Your task to perform on an android device: open the mobile data screen to see how much data has been used Image 0: 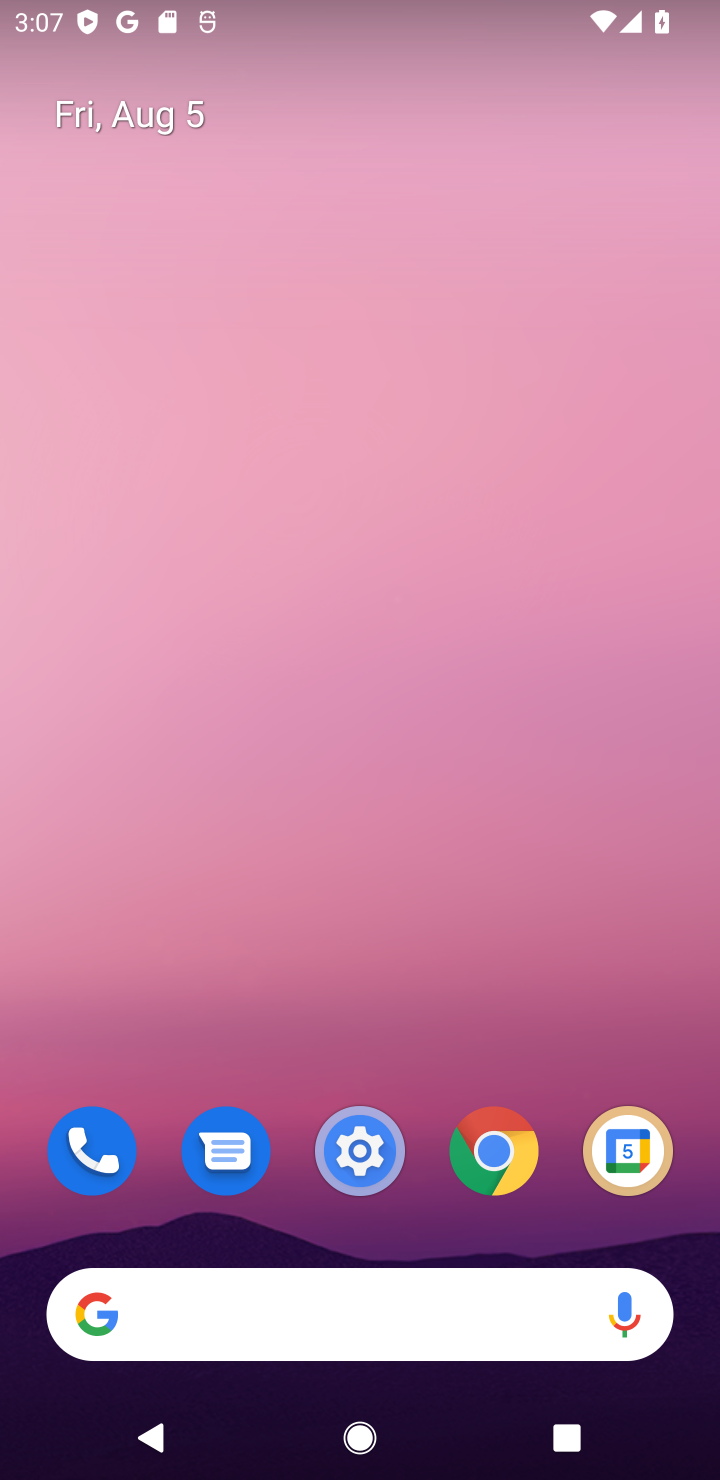
Step 0: click (354, 1164)
Your task to perform on an android device: open the mobile data screen to see how much data has been used Image 1: 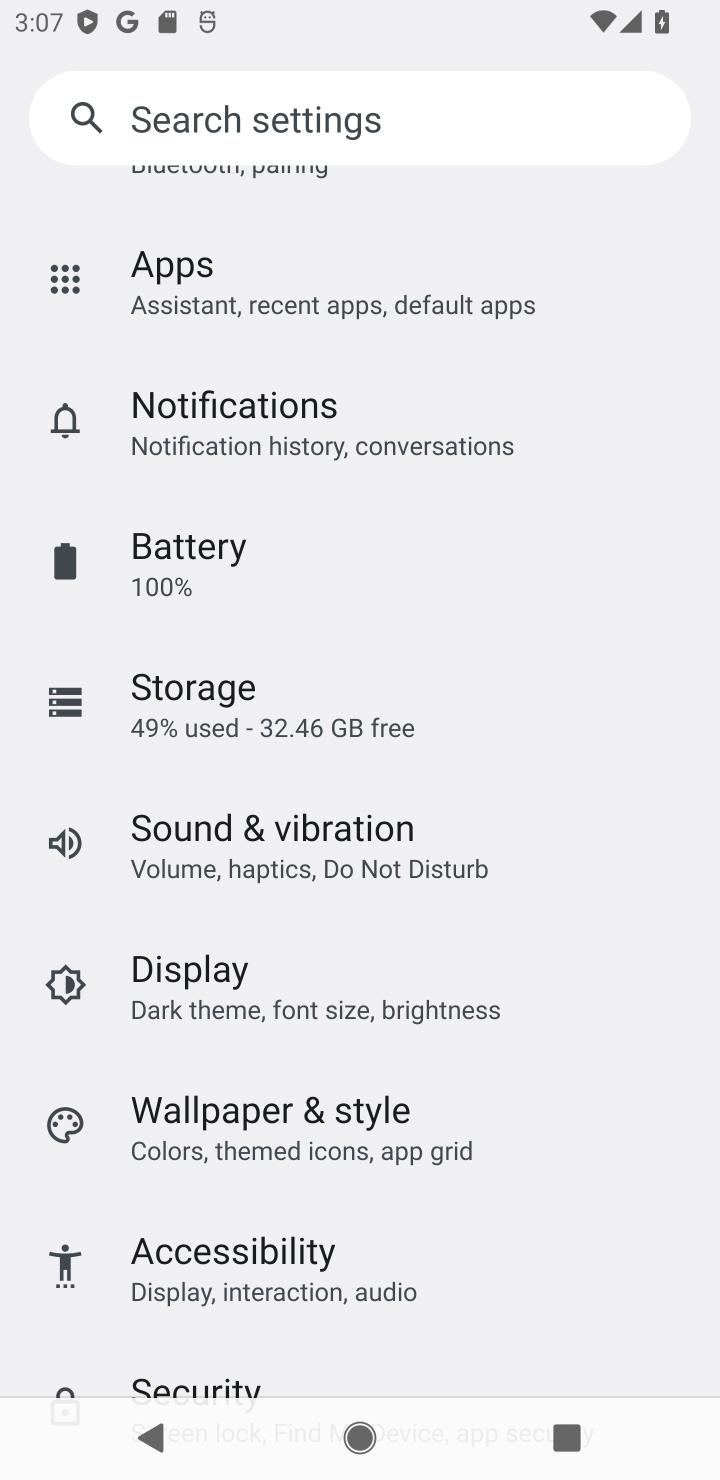
Step 1: drag from (466, 512) to (517, 1076)
Your task to perform on an android device: open the mobile data screen to see how much data has been used Image 2: 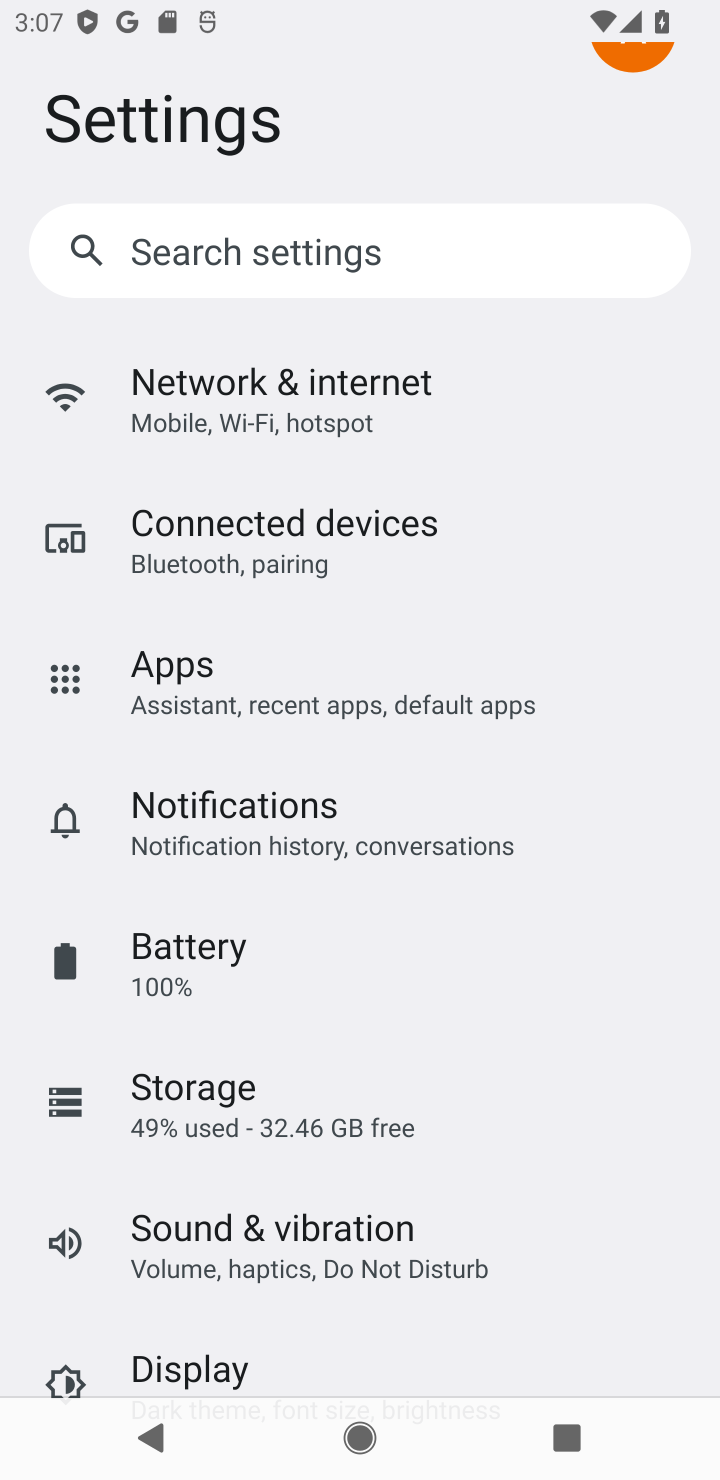
Step 2: click (373, 382)
Your task to perform on an android device: open the mobile data screen to see how much data has been used Image 3: 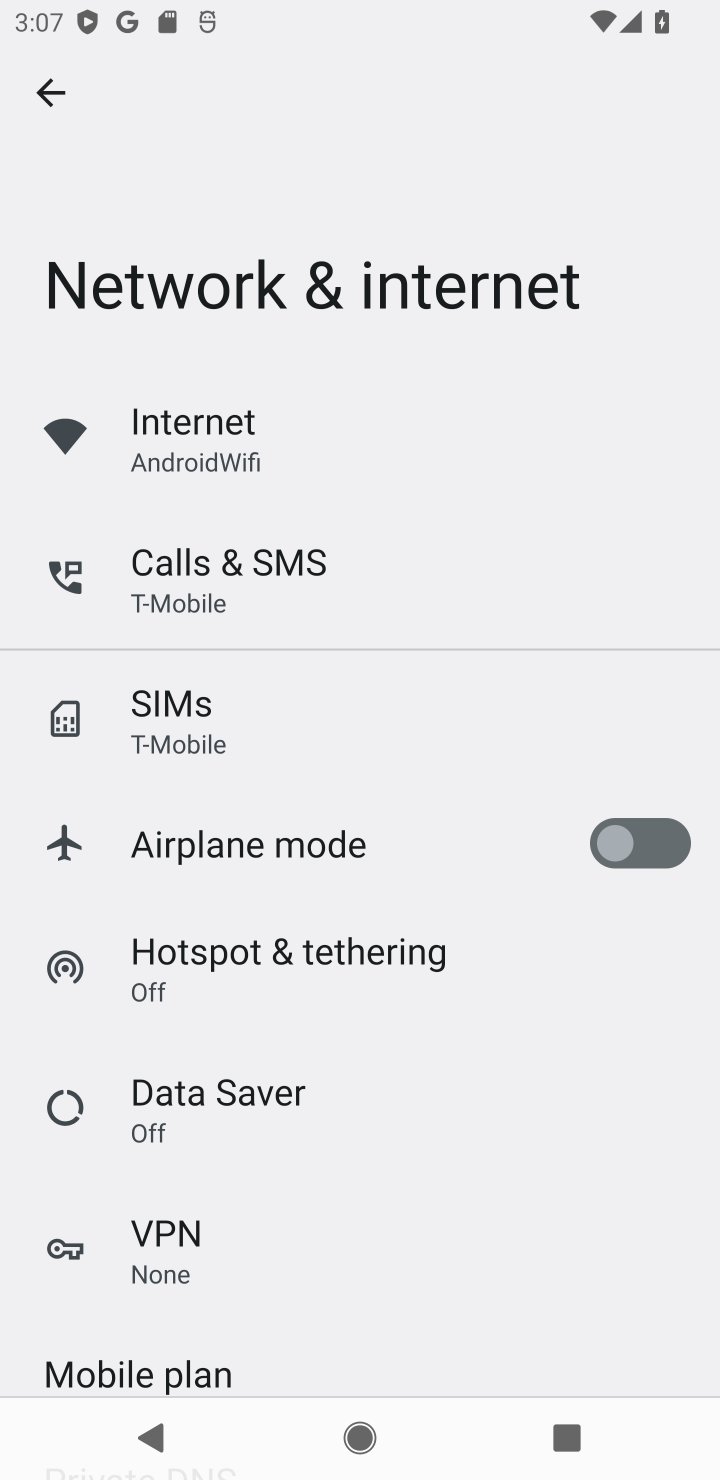
Step 3: click (272, 423)
Your task to perform on an android device: open the mobile data screen to see how much data has been used Image 4: 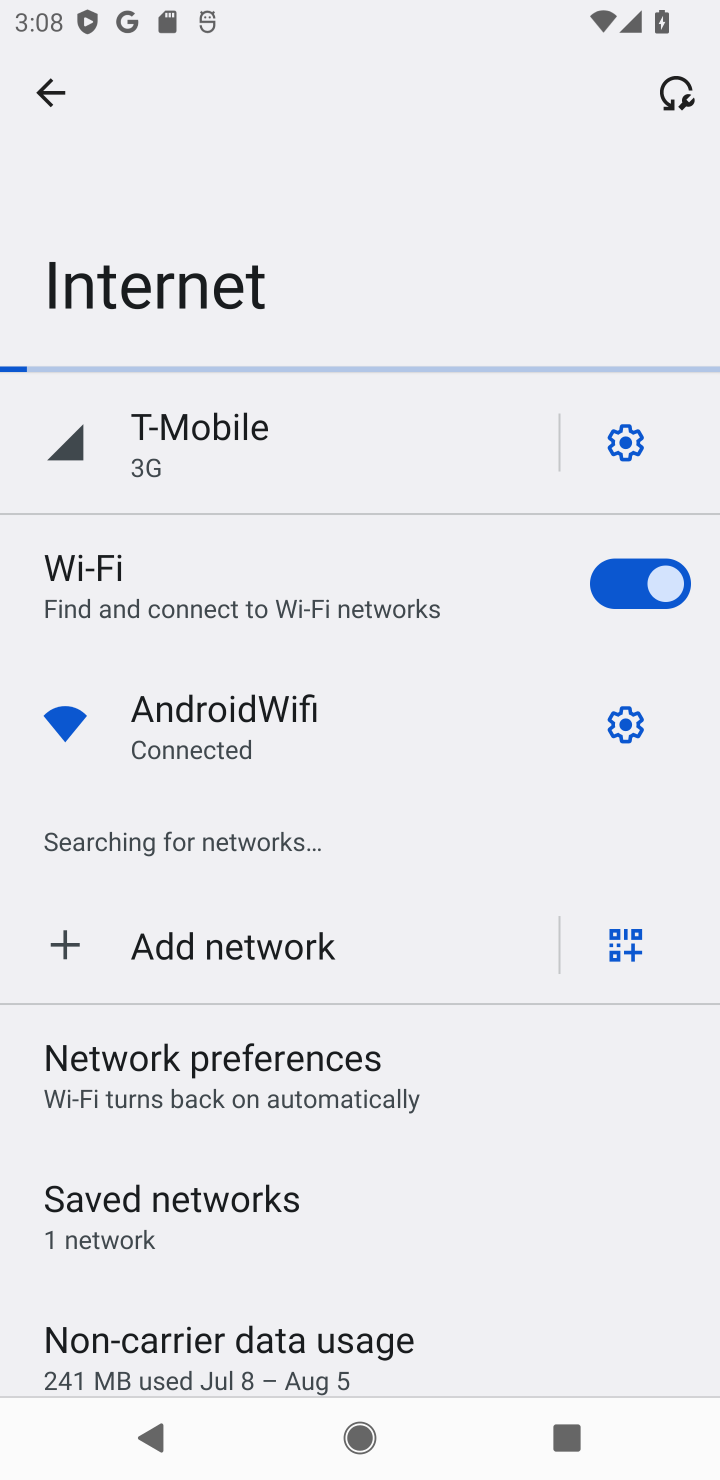
Step 4: click (275, 1354)
Your task to perform on an android device: open the mobile data screen to see how much data has been used Image 5: 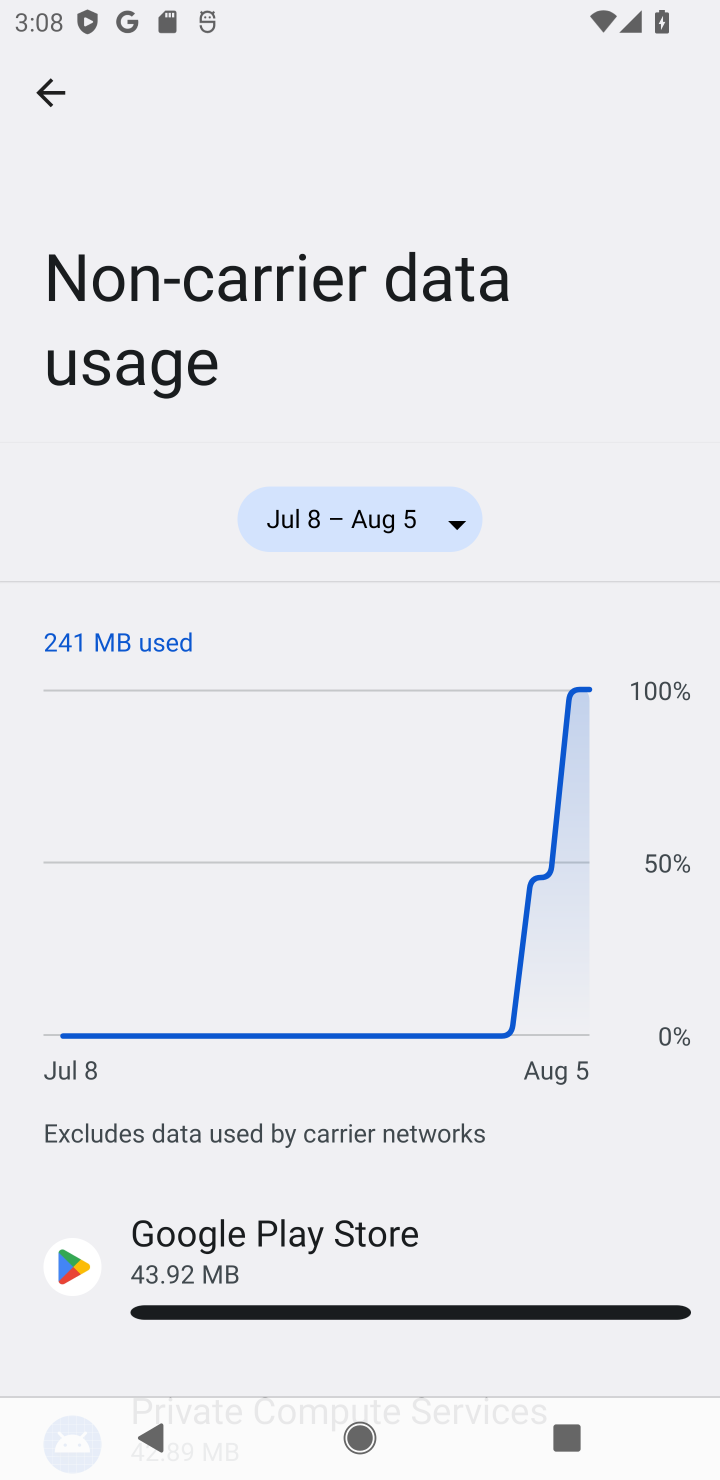
Step 5: task complete